Your task to perform on an android device: Open Amazon Image 0: 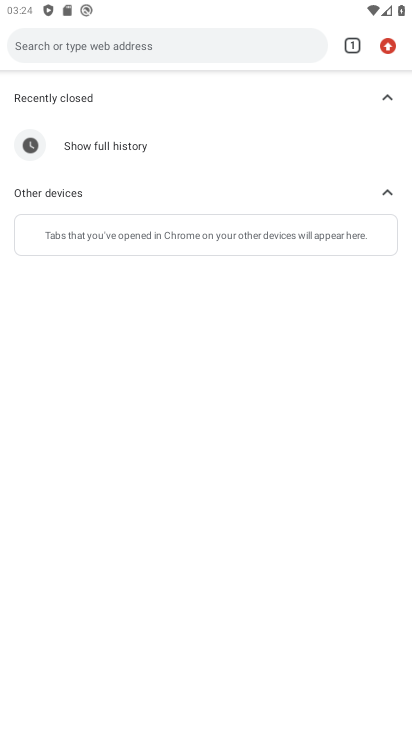
Step 0: press home button
Your task to perform on an android device: Open Amazon Image 1: 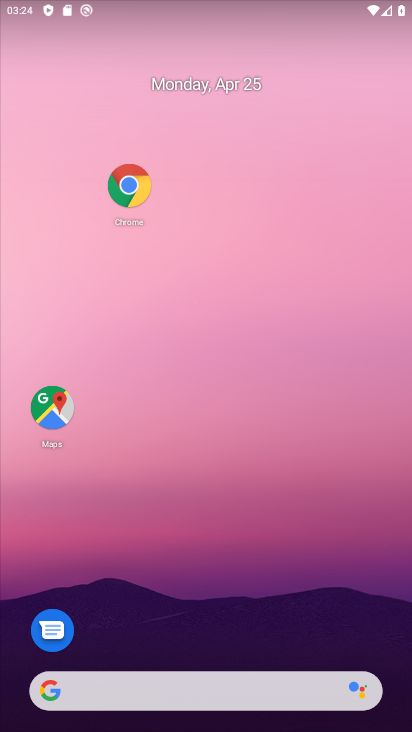
Step 1: click (127, 188)
Your task to perform on an android device: Open Amazon Image 2: 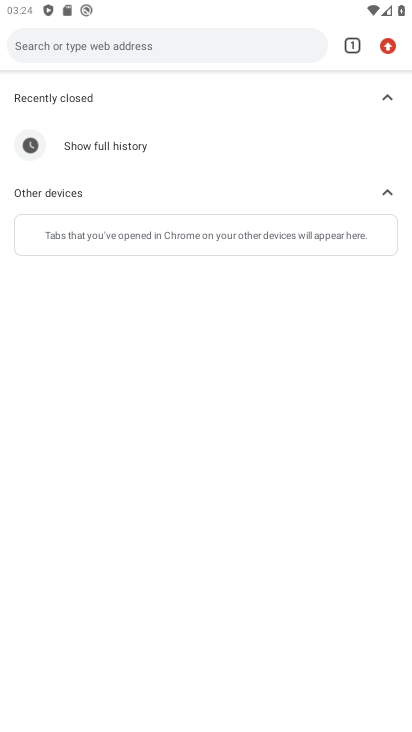
Step 2: click (82, 54)
Your task to perform on an android device: Open Amazon Image 3: 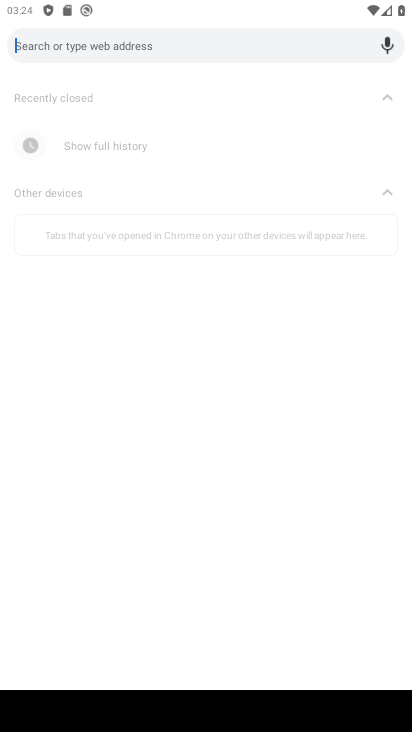
Step 3: type "Amazon"
Your task to perform on an android device: Open Amazon Image 4: 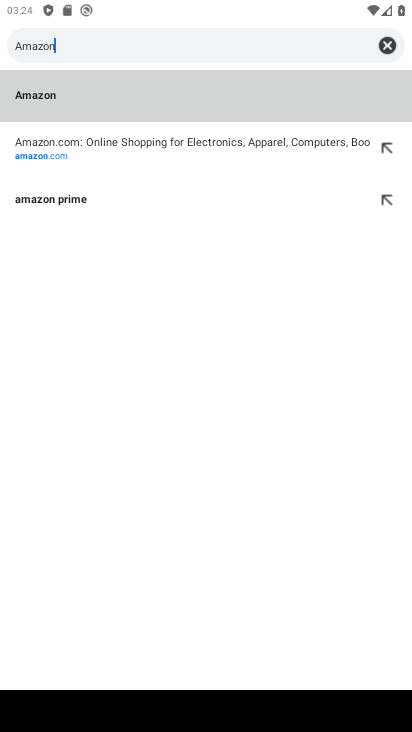
Step 4: click (61, 110)
Your task to perform on an android device: Open Amazon Image 5: 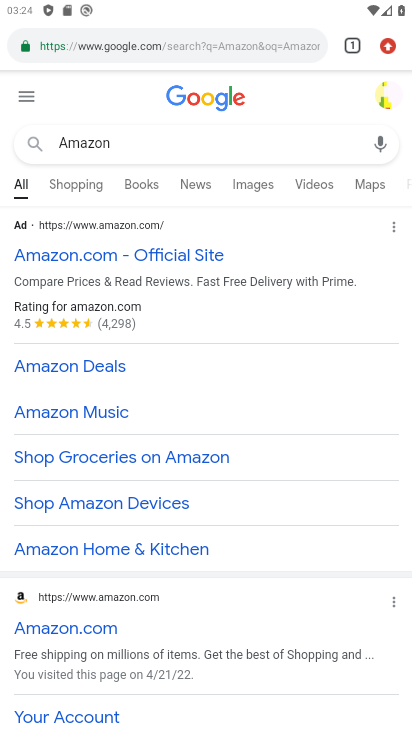
Step 5: task complete